Your task to perform on an android device: Open the stopwatch Image 0: 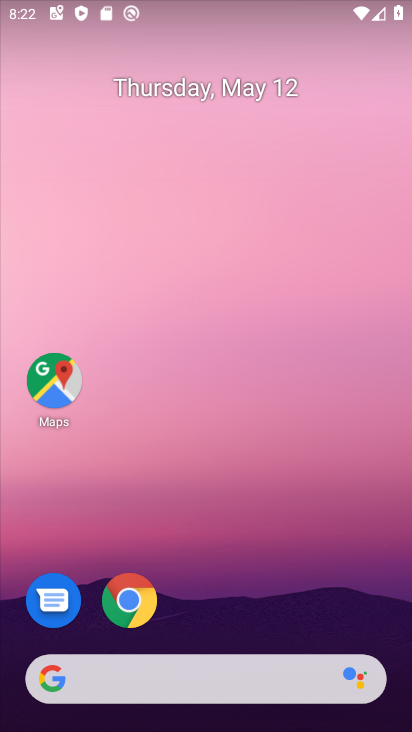
Step 0: drag from (232, 610) to (231, 239)
Your task to perform on an android device: Open the stopwatch Image 1: 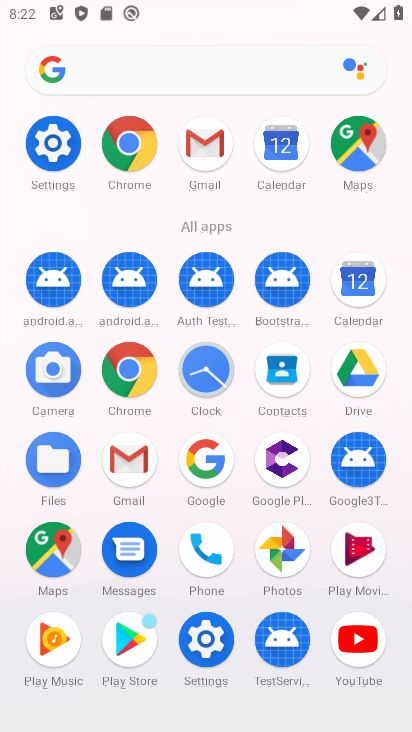
Step 1: click (203, 487)
Your task to perform on an android device: Open the stopwatch Image 2: 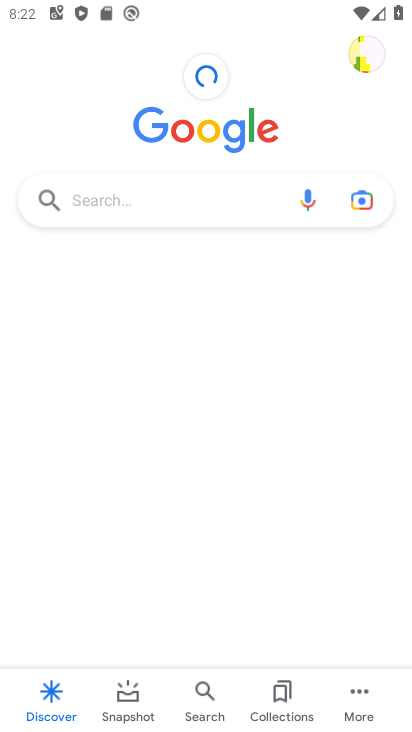
Step 2: click (173, 202)
Your task to perform on an android device: Open the stopwatch Image 3: 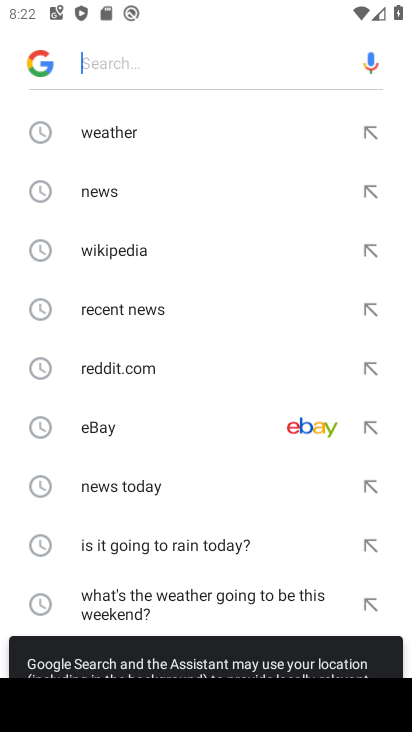
Step 3: click (122, 311)
Your task to perform on an android device: Open the stopwatch Image 4: 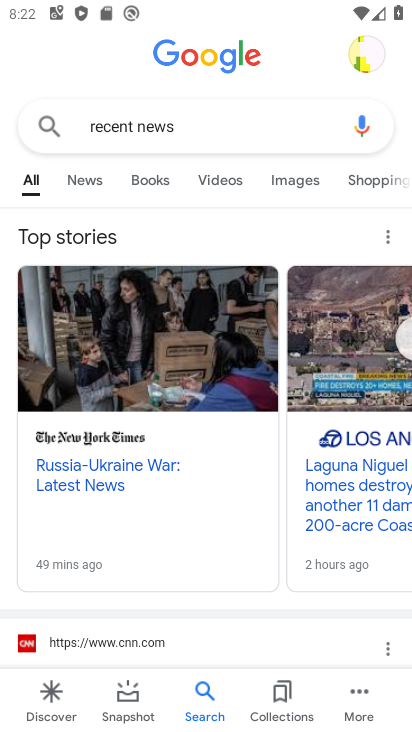
Step 4: task complete